Your task to perform on an android device: Open settings on Google Maps Image 0: 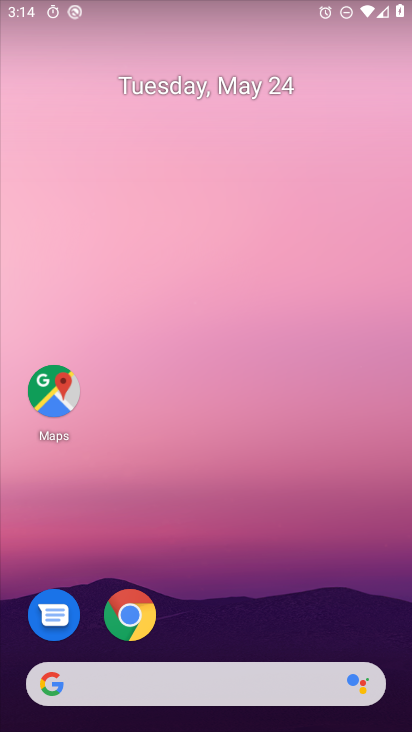
Step 0: click (73, 389)
Your task to perform on an android device: Open settings on Google Maps Image 1: 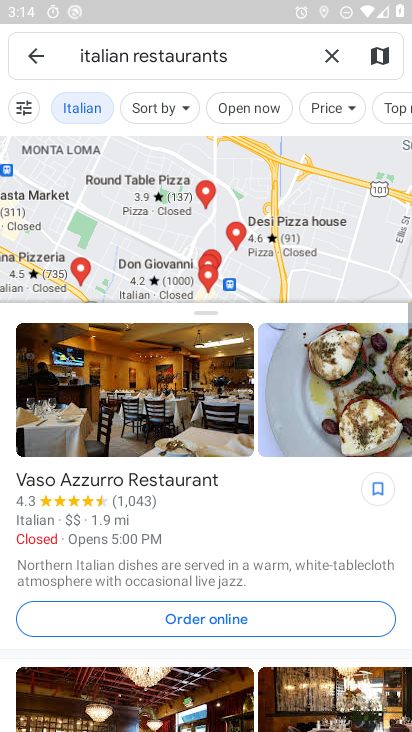
Step 1: click (38, 52)
Your task to perform on an android device: Open settings on Google Maps Image 2: 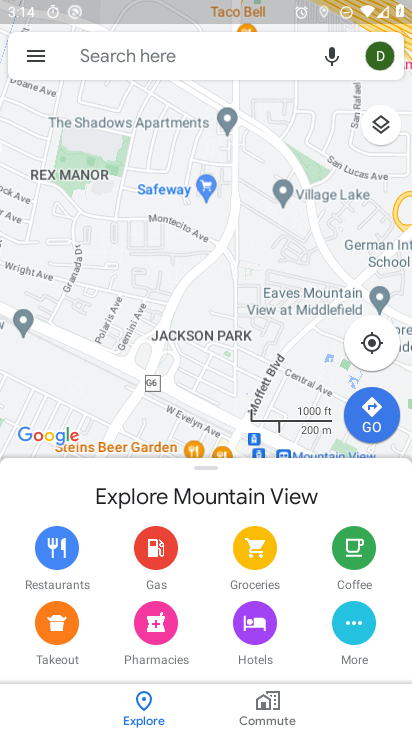
Step 2: click (33, 54)
Your task to perform on an android device: Open settings on Google Maps Image 3: 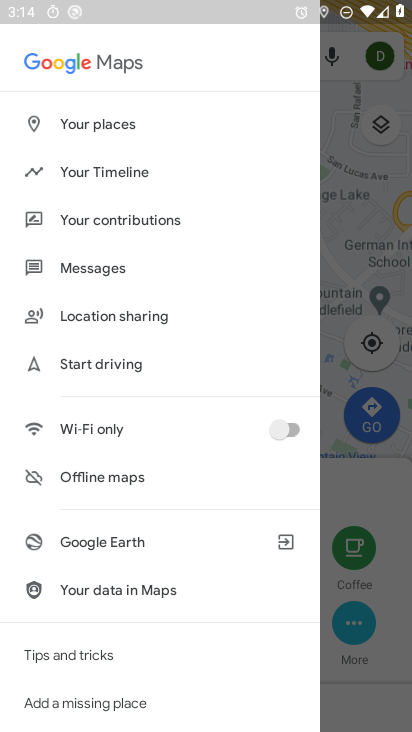
Step 3: drag from (112, 637) to (107, 250)
Your task to perform on an android device: Open settings on Google Maps Image 4: 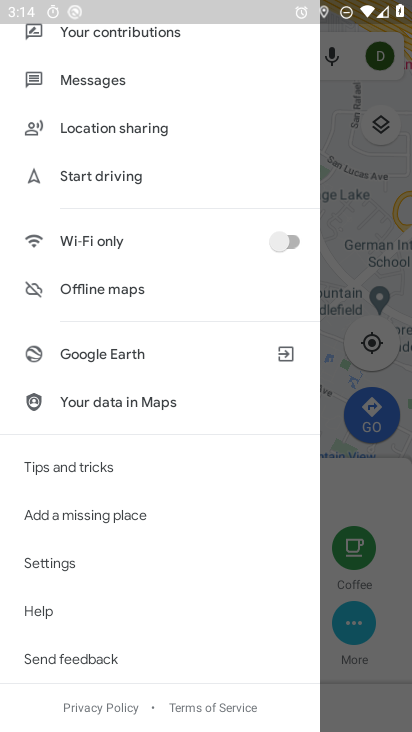
Step 4: click (48, 561)
Your task to perform on an android device: Open settings on Google Maps Image 5: 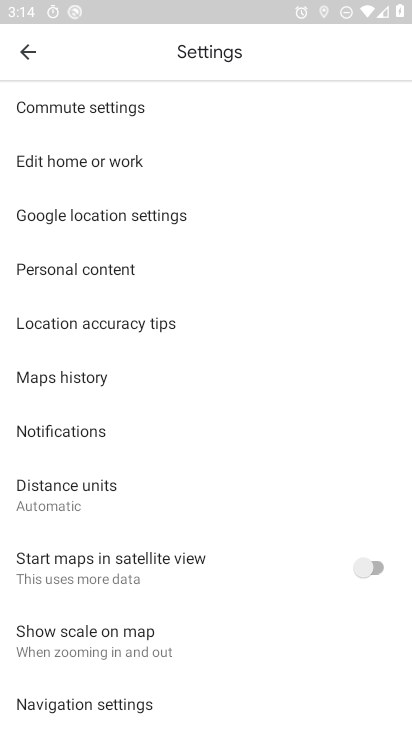
Step 5: task complete